Your task to perform on an android device: see sites visited before in the chrome app Image 0: 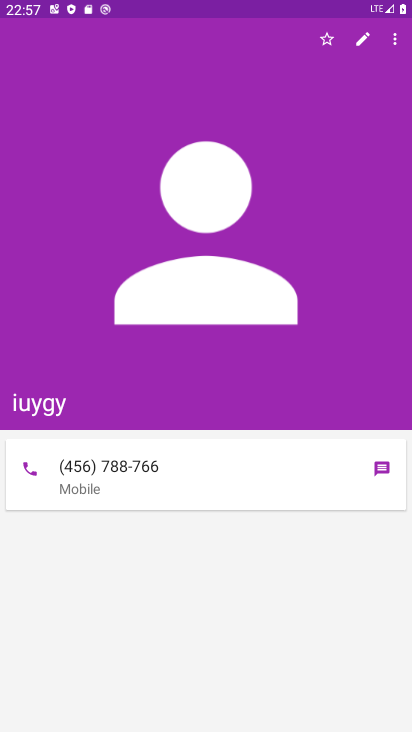
Step 0: press home button
Your task to perform on an android device: see sites visited before in the chrome app Image 1: 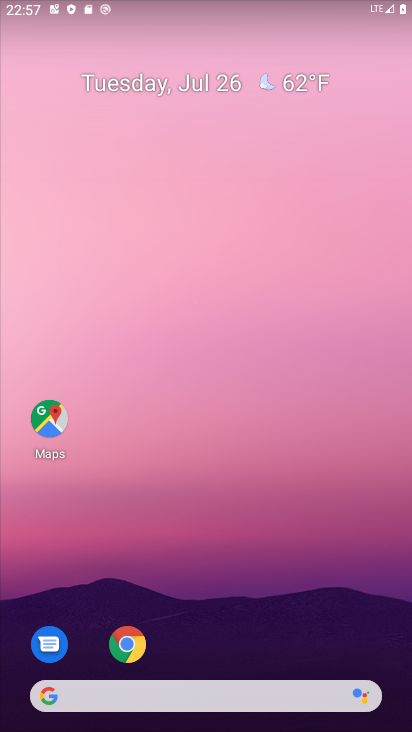
Step 1: click (131, 648)
Your task to perform on an android device: see sites visited before in the chrome app Image 2: 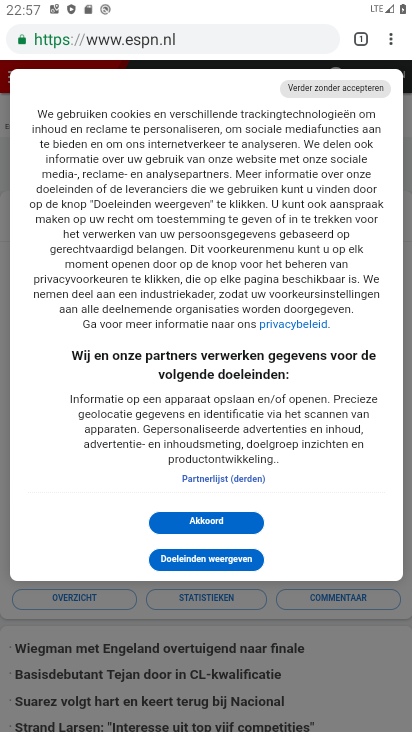
Step 2: task complete